Your task to perform on an android device: turn on airplane mode Image 0: 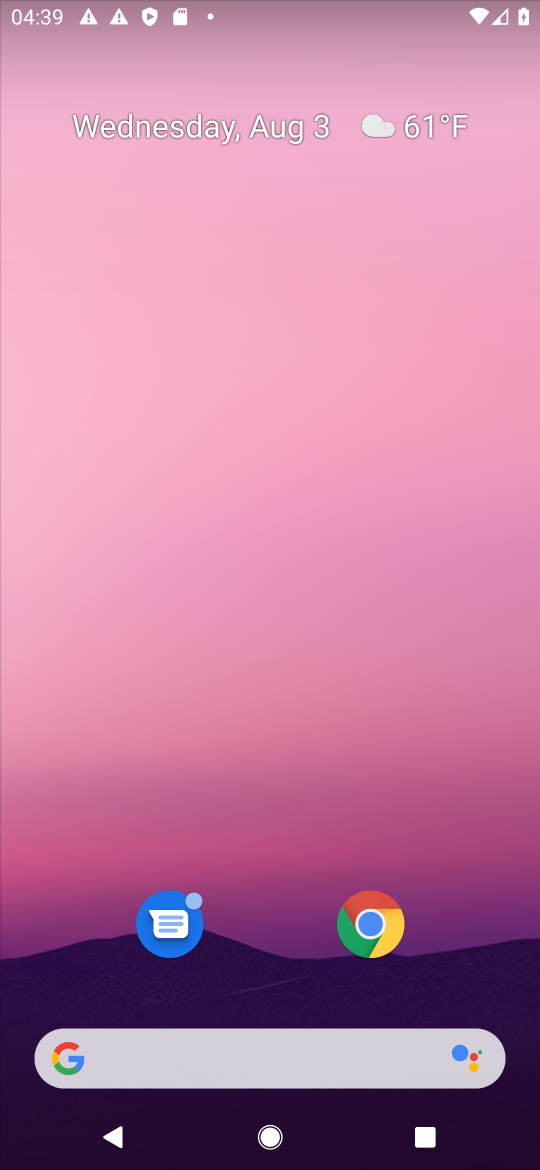
Step 0: drag from (268, 908) to (268, 285)
Your task to perform on an android device: turn on airplane mode Image 1: 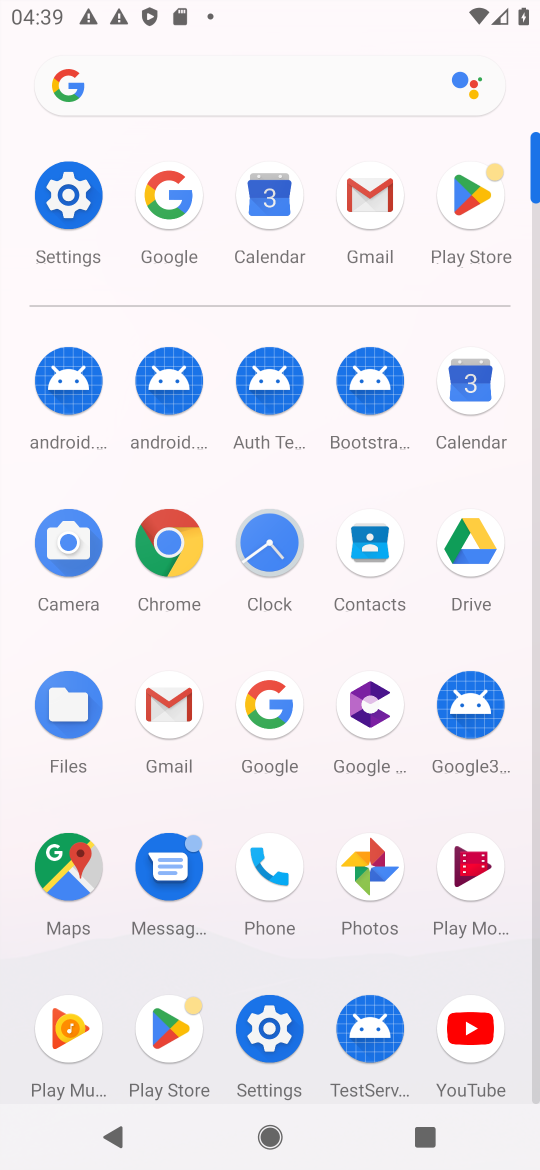
Step 1: click (47, 207)
Your task to perform on an android device: turn on airplane mode Image 2: 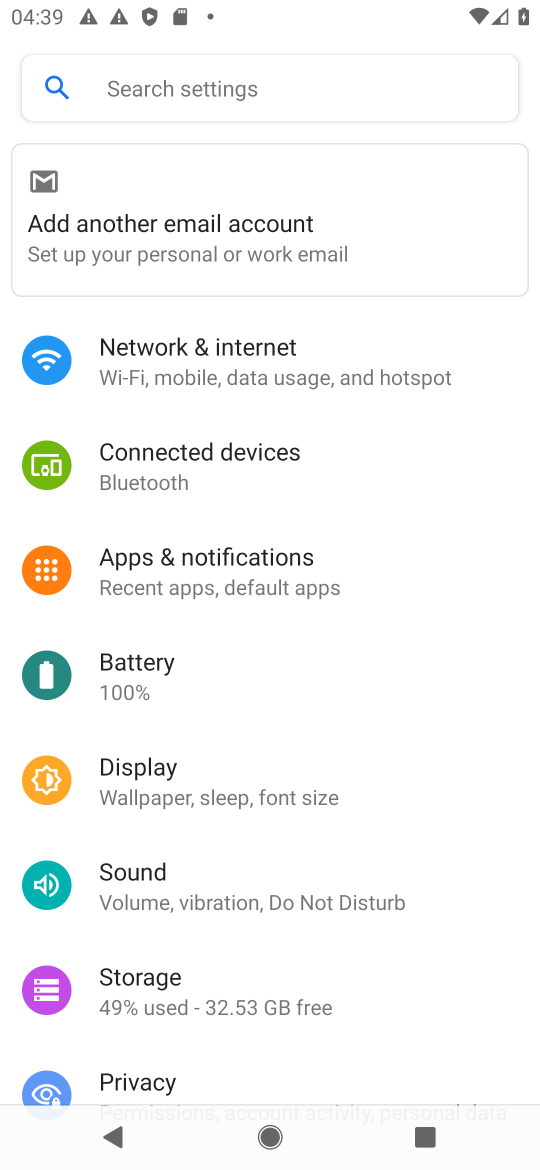
Step 2: click (224, 359)
Your task to perform on an android device: turn on airplane mode Image 3: 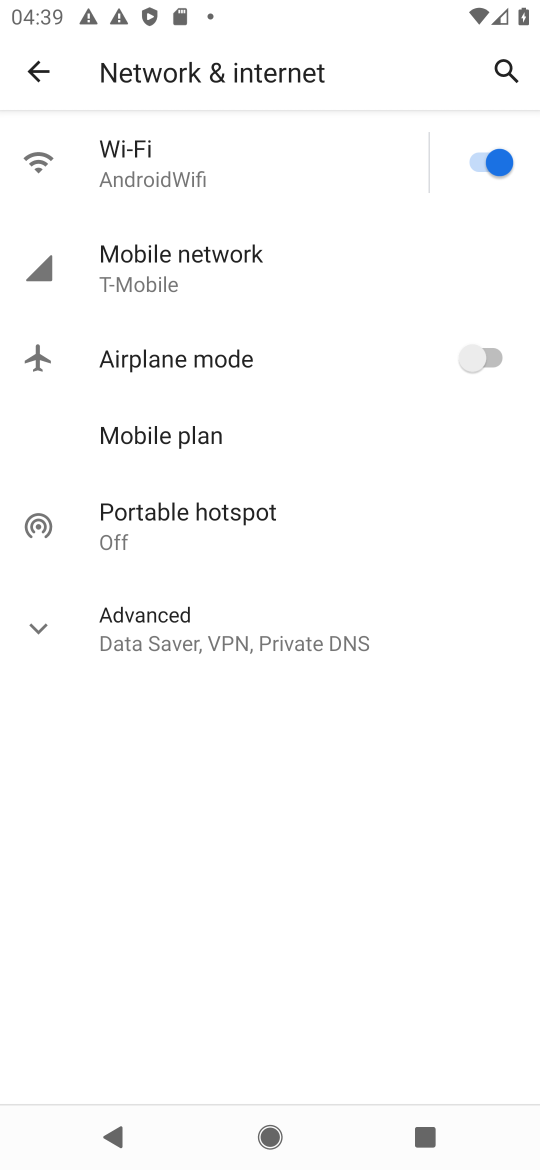
Step 3: click (496, 361)
Your task to perform on an android device: turn on airplane mode Image 4: 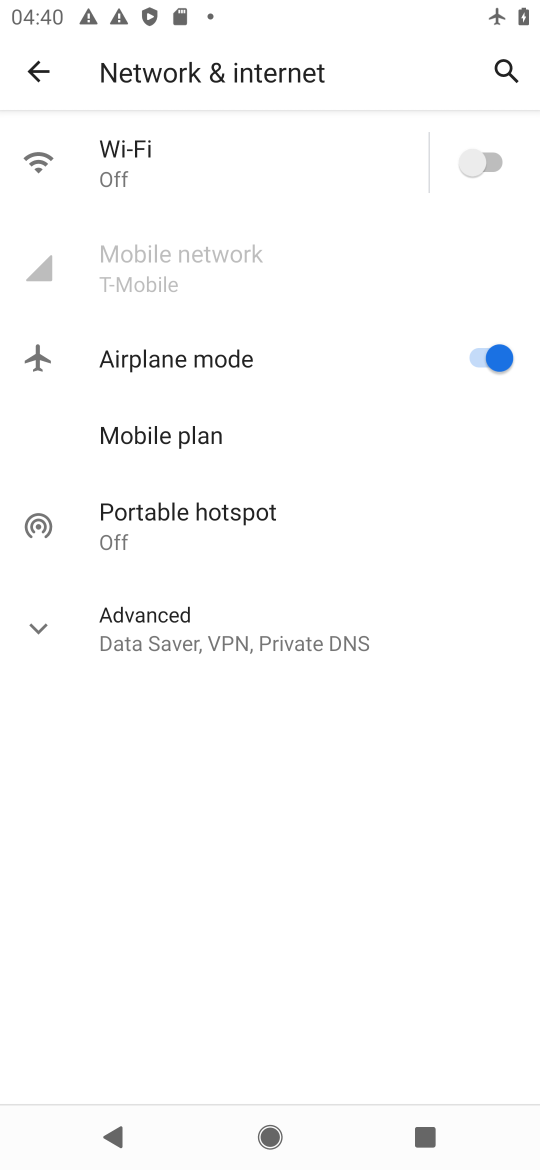
Step 4: task complete